Your task to perform on an android device: open chrome and create a bookmark for the current page Image 0: 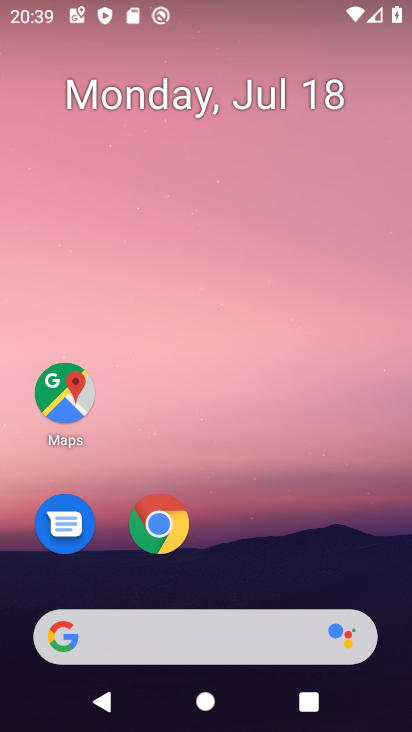
Step 0: click (164, 522)
Your task to perform on an android device: open chrome and create a bookmark for the current page Image 1: 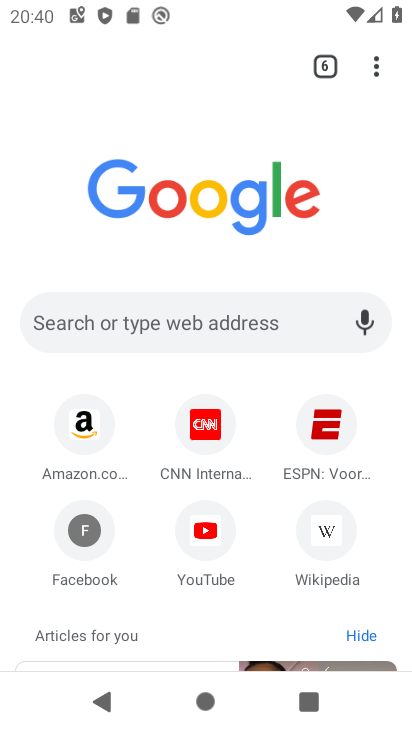
Step 1: click (373, 71)
Your task to perform on an android device: open chrome and create a bookmark for the current page Image 2: 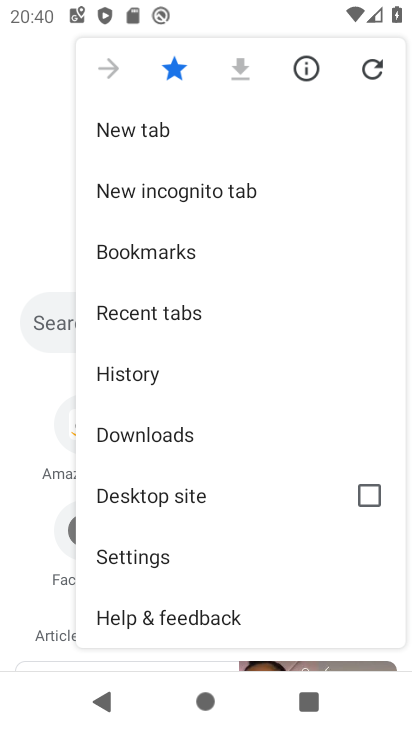
Step 2: click (44, 182)
Your task to perform on an android device: open chrome and create a bookmark for the current page Image 3: 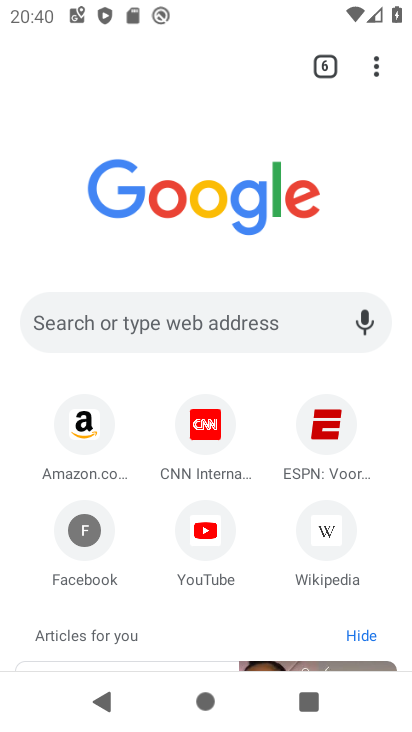
Step 3: task complete